Your task to perform on an android device: delete location history Image 0: 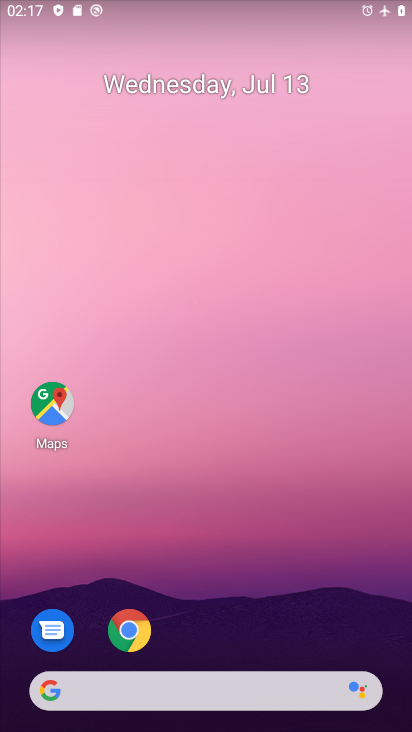
Step 0: click (47, 425)
Your task to perform on an android device: delete location history Image 1: 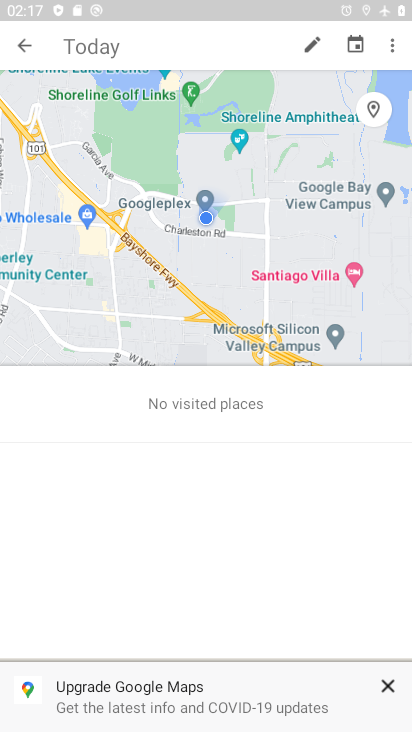
Step 1: click (33, 46)
Your task to perform on an android device: delete location history Image 2: 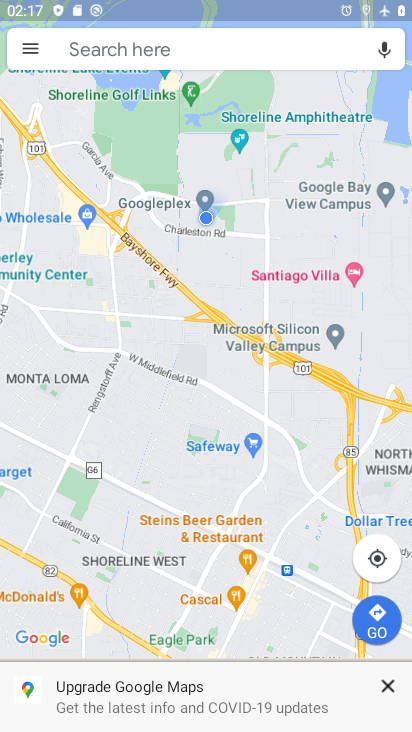
Step 2: click (33, 46)
Your task to perform on an android device: delete location history Image 3: 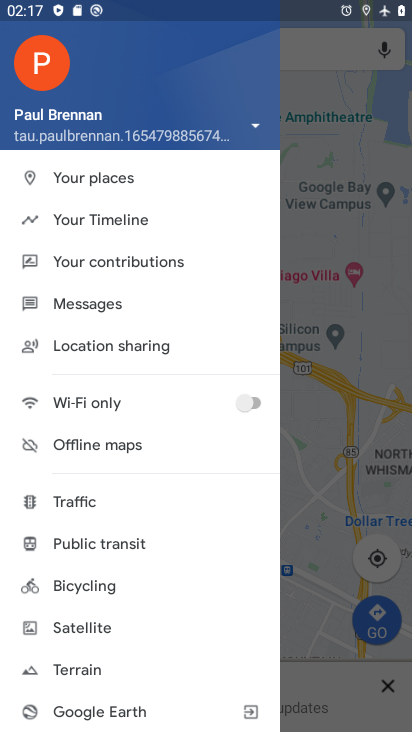
Step 3: click (157, 211)
Your task to perform on an android device: delete location history Image 4: 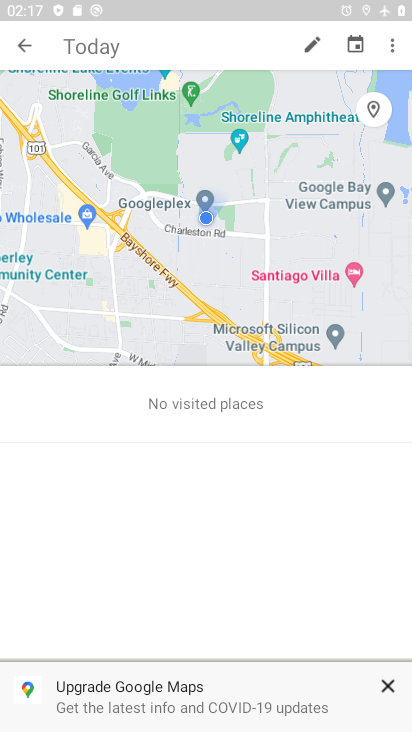
Step 4: click (397, 44)
Your task to perform on an android device: delete location history Image 5: 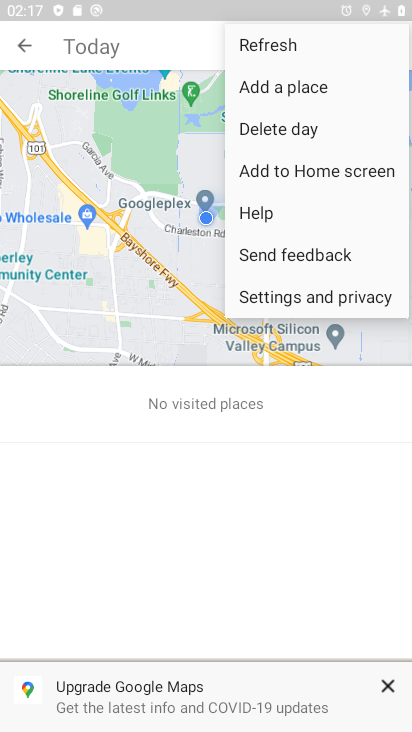
Step 5: click (361, 292)
Your task to perform on an android device: delete location history Image 6: 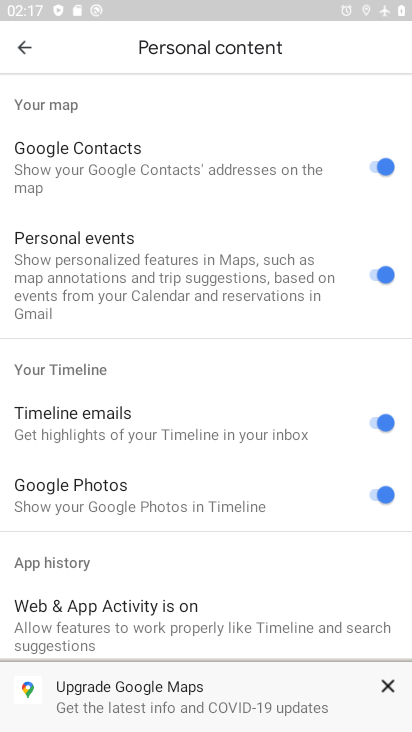
Step 6: drag from (220, 584) to (212, 259)
Your task to perform on an android device: delete location history Image 7: 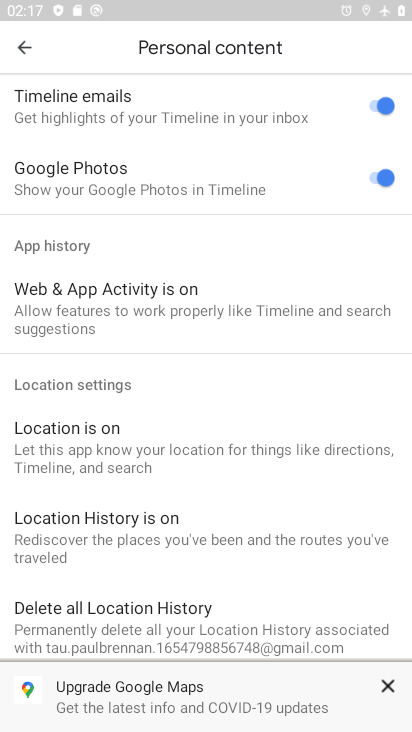
Step 7: click (187, 612)
Your task to perform on an android device: delete location history Image 8: 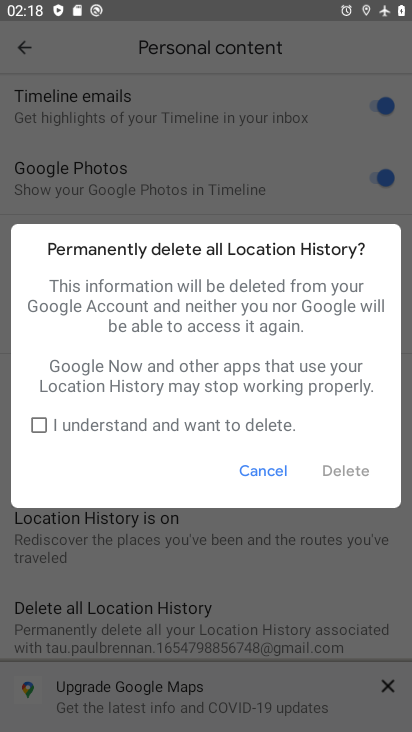
Step 8: click (279, 432)
Your task to perform on an android device: delete location history Image 9: 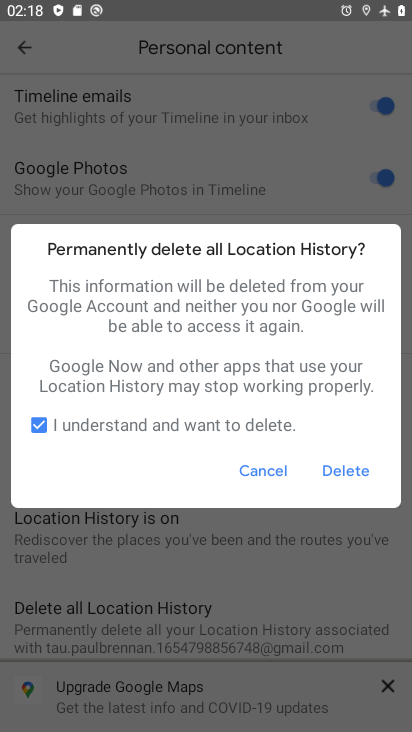
Step 9: click (357, 475)
Your task to perform on an android device: delete location history Image 10: 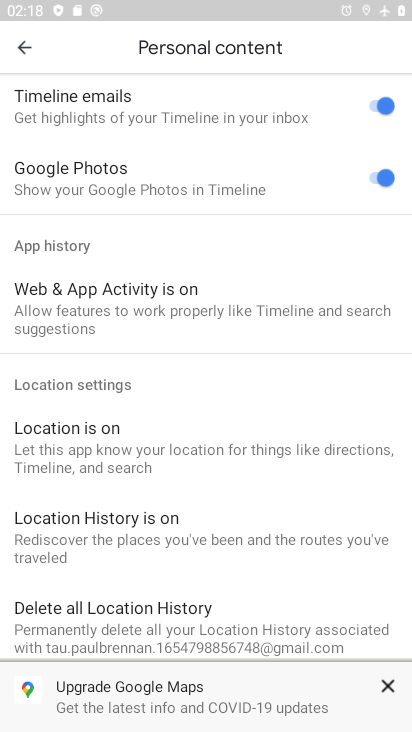
Step 10: task complete